Your task to perform on an android device: turn notification dots off Image 0: 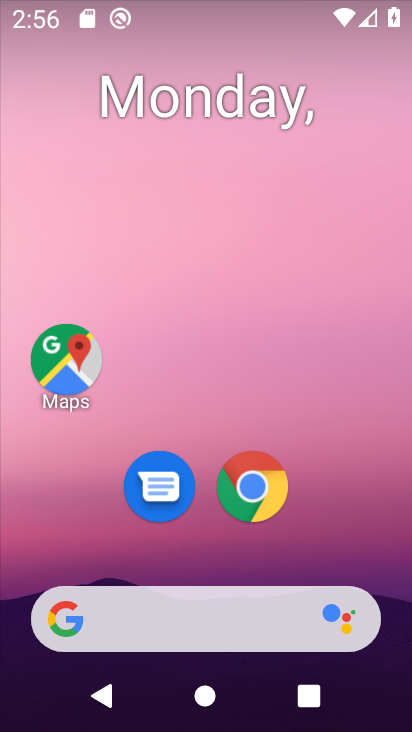
Step 0: drag from (195, 544) to (238, 78)
Your task to perform on an android device: turn notification dots off Image 1: 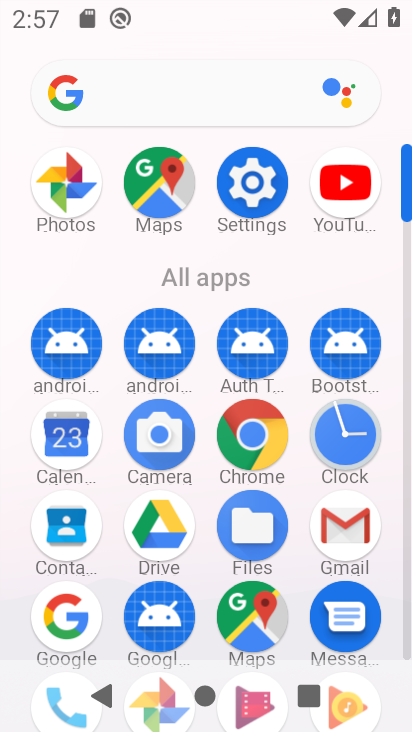
Step 1: click (255, 187)
Your task to perform on an android device: turn notification dots off Image 2: 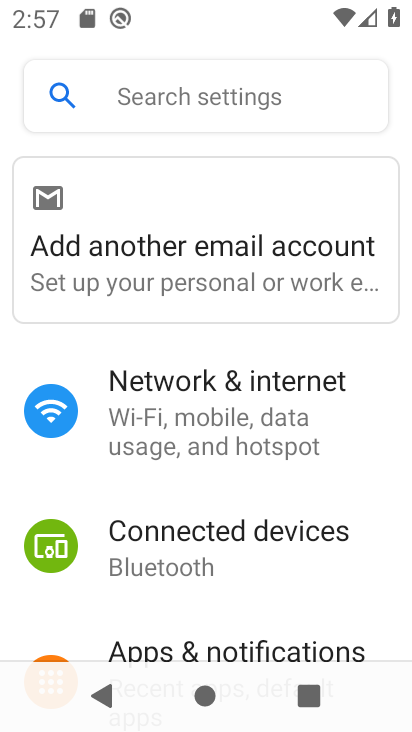
Step 2: drag from (244, 608) to (273, 469)
Your task to perform on an android device: turn notification dots off Image 3: 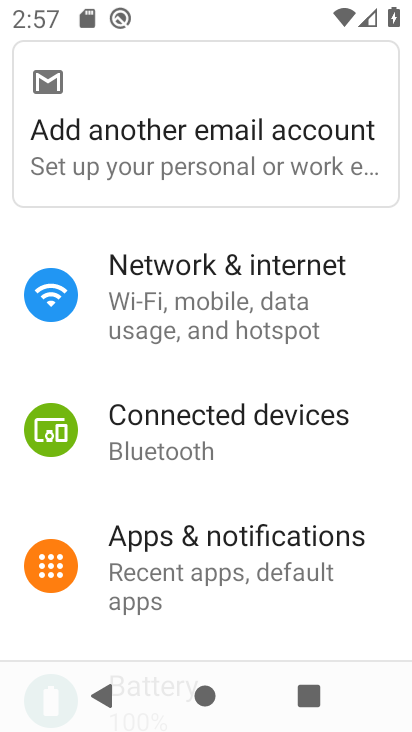
Step 3: click (252, 544)
Your task to perform on an android device: turn notification dots off Image 4: 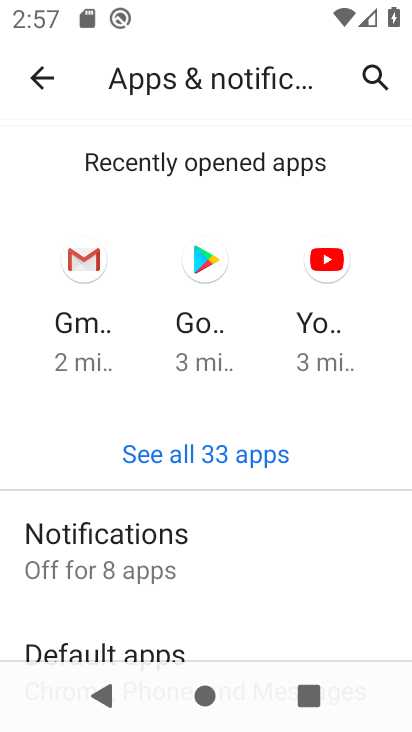
Step 4: drag from (203, 555) to (273, 224)
Your task to perform on an android device: turn notification dots off Image 5: 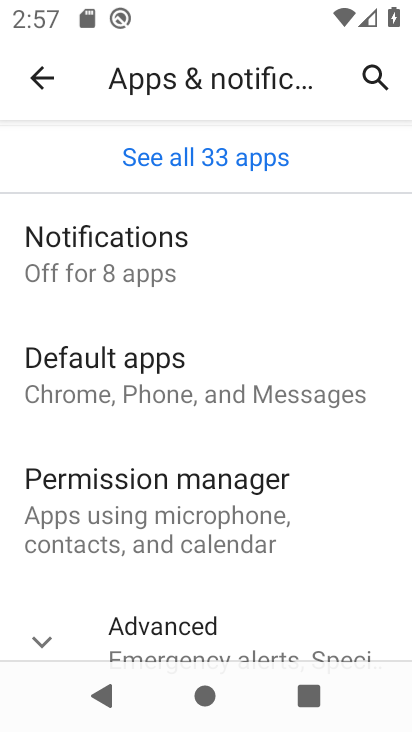
Step 5: drag from (197, 484) to (209, 306)
Your task to perform on an android device: turn notification dots off Image 6: 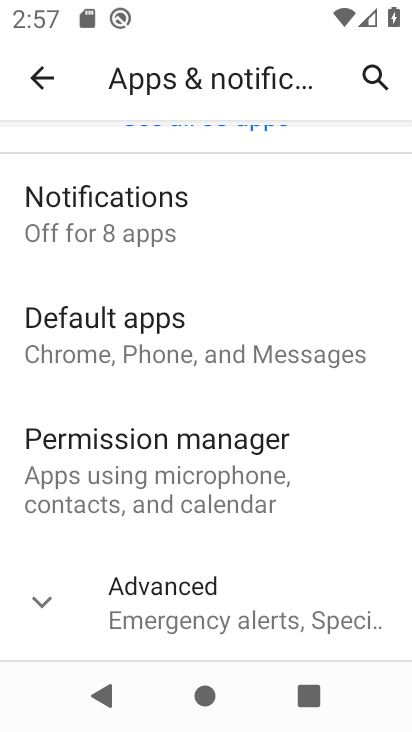
Step 6: click (69, 214)
Your task to perform on an android device: turn notification dots off Image 7: 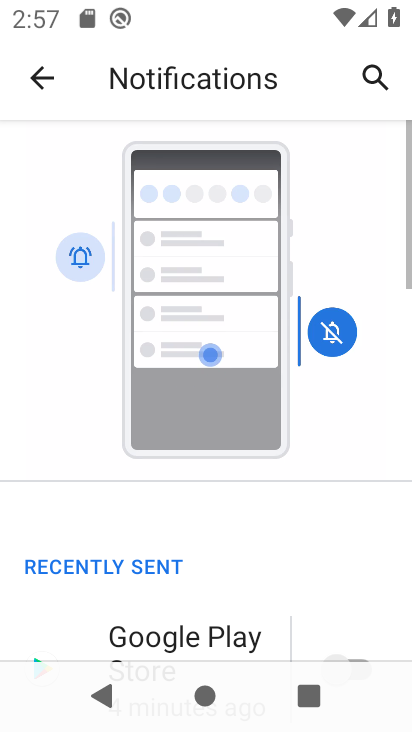
Step 7: drag from (179, 534) to (197, 210)
Your task to perform on an android device: turn notification dots off Image 8: 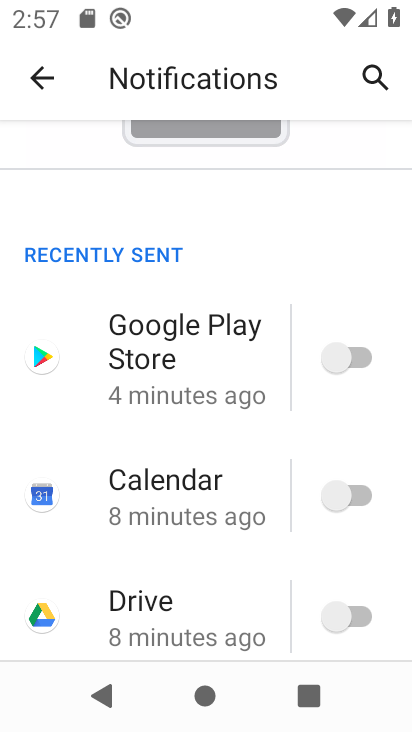
Step 8: click (217, 158)
Your task to perform on an android device: turn notification dots off Image 9: 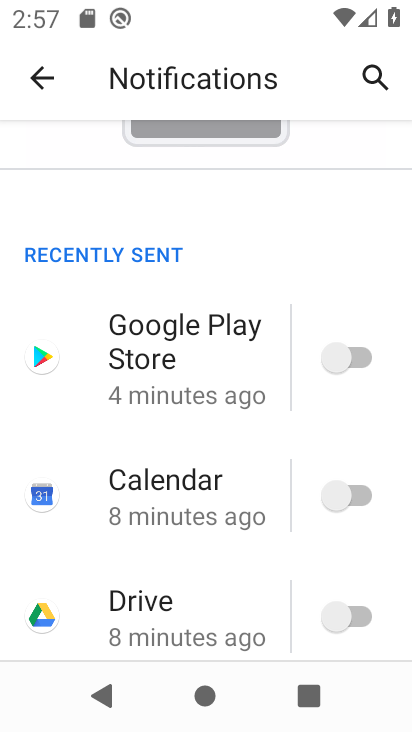
Step 9: drag from (192, 605) to (256, 210)
Your task to perform on an android device: turn notification dots off Image 10: 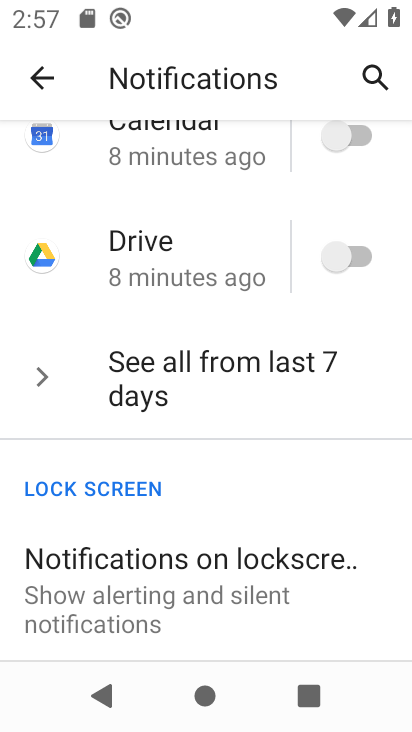
Step 10: drag from (250, 561) to (261, 343)
Your task to perform on an android device: turn notification dots off Image 11: 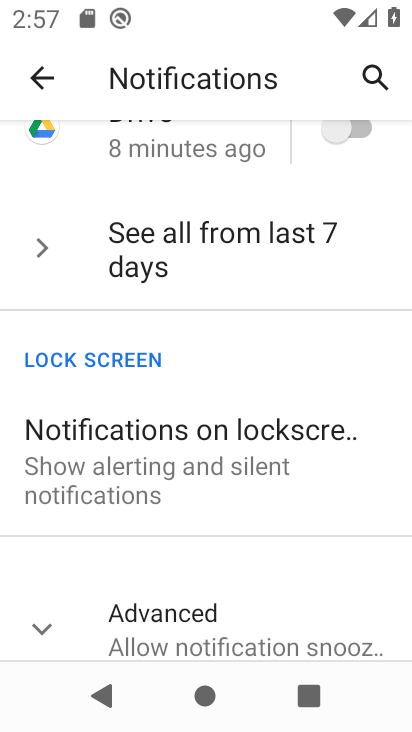
Step 11: drag from (189, 602) to (199, 135)
Your task to perform on an android device: turn notification dots off Image 12: 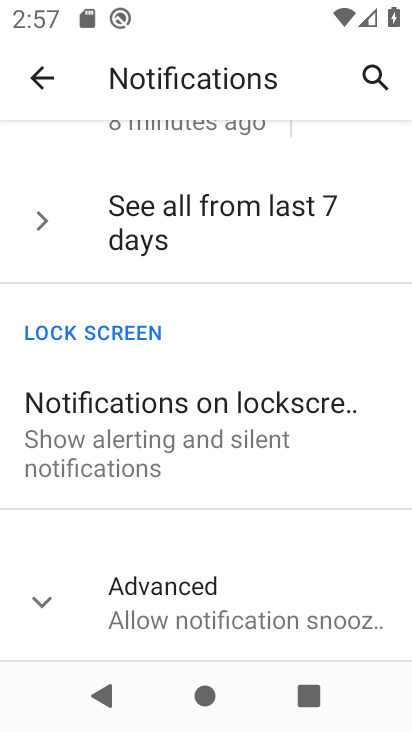
Step 12: click (161, 625)
Your task to perform on an android device: turn notification dots off Image 13: 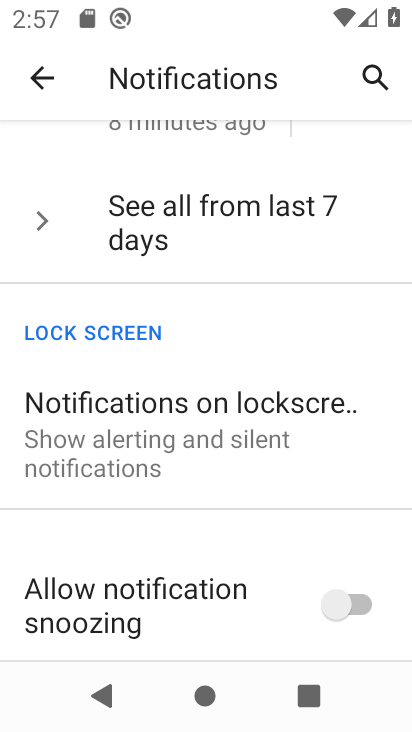
Step 13: drag from (203, 571) to (253, 96)
Your task to perform on an android device: turn notification dots off Image 14: 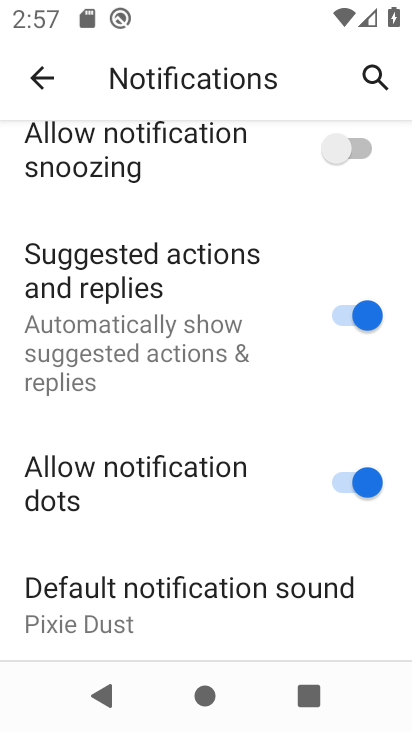
Step 14: click (321, 469)
Your task to perform on an android device: turn notification dots off Image 15: 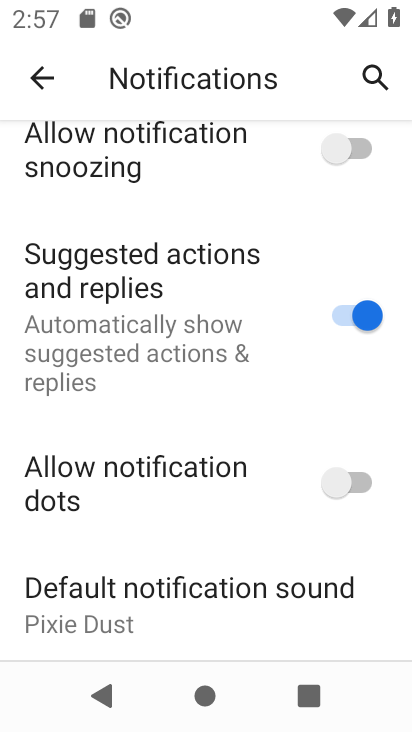
Step 15: task complete